Your task to perform on an android device: What is the recent news? Image 0: 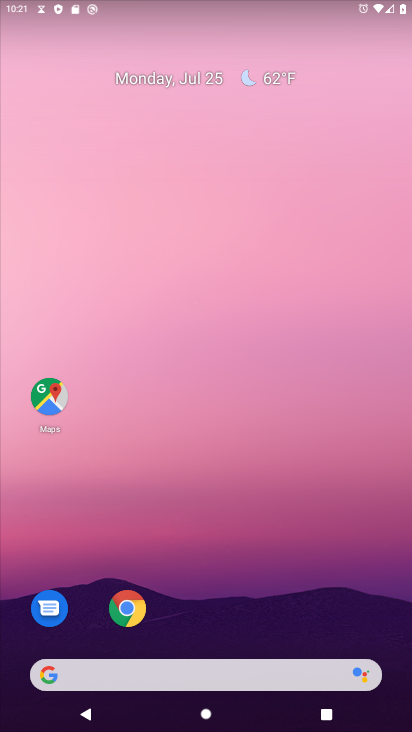
Step 0: press home button
Your task to perform on an android device: What is the recent news? Image 1: 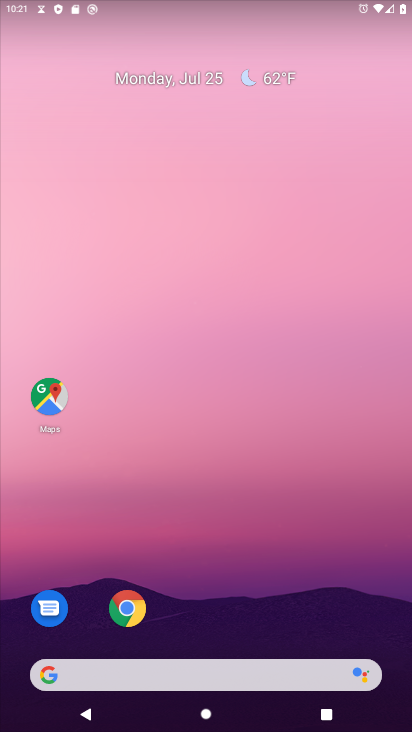
Step 1: click (128, 610)
Your task to perform on an android device: What is the recent news? Image 2: 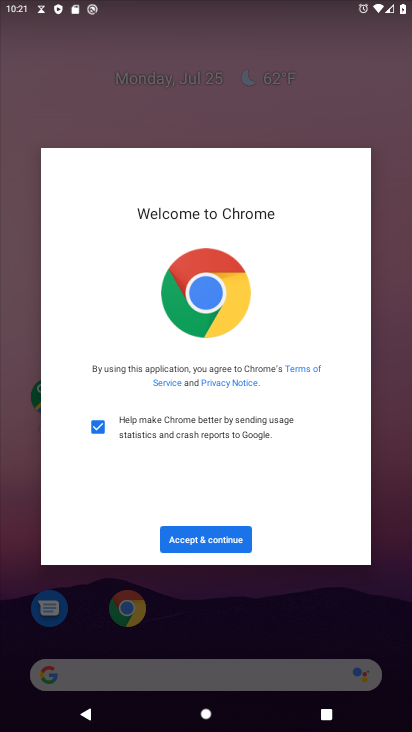
Step 2: click (200, 541)
Your task to perform on an android device: What is the recent news? Image 3: 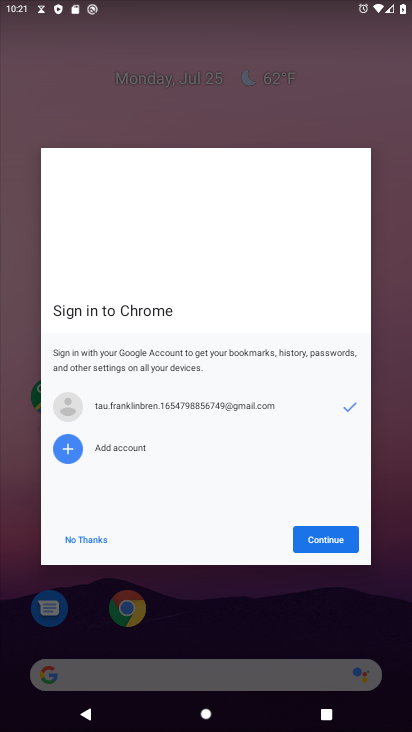
Step 3: click (321, 540)
Your task to perform on an android device: What is the recent news? Image 4: 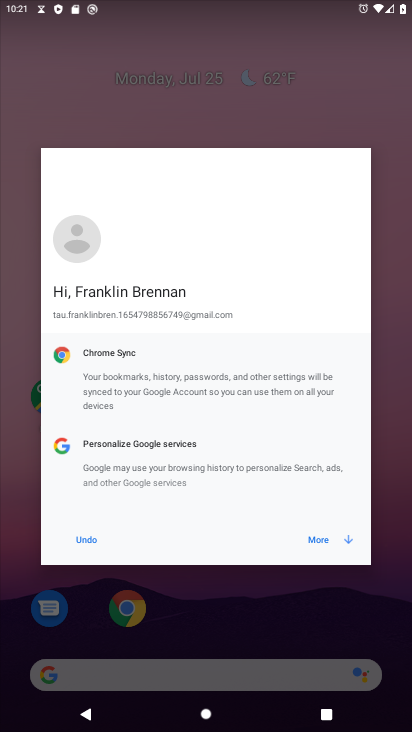
Step 4: click (321, 540)
Your task to perform on an android device: What is the recent news? Image 5: 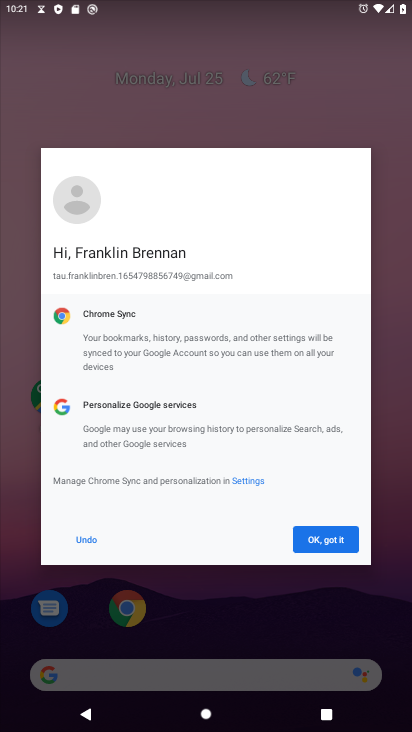
Step 5: click (321, 540)
Your task to perform on an android device: What is the recent news? Image 6: 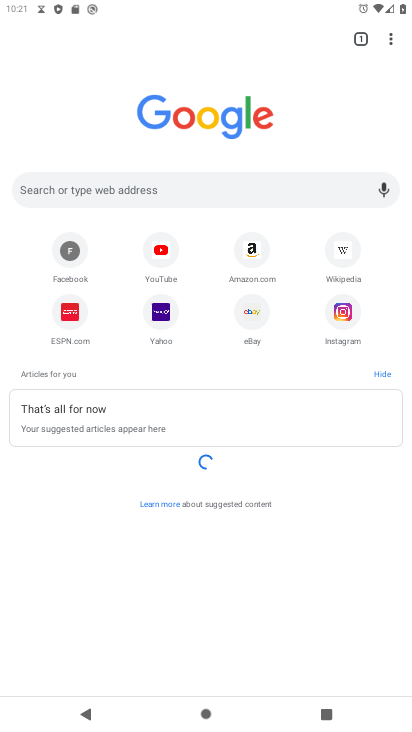
Step 6: click (251, 186)
Your task to perform on an android device: What is the recent news? Image 7: 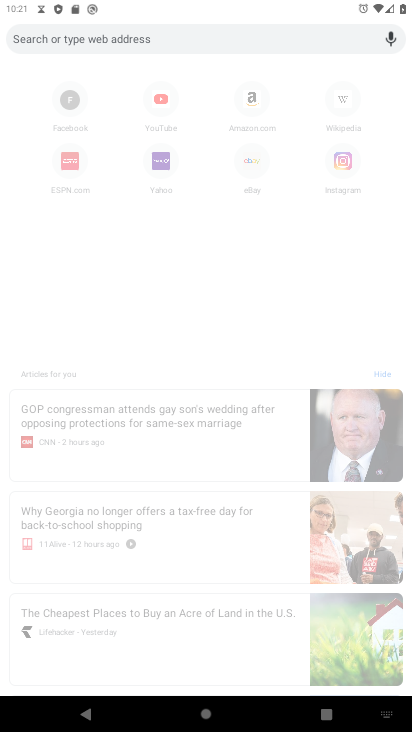
Step 7: type "recent news"
Your task to perform on an android device: What is the recent news? Image 8: 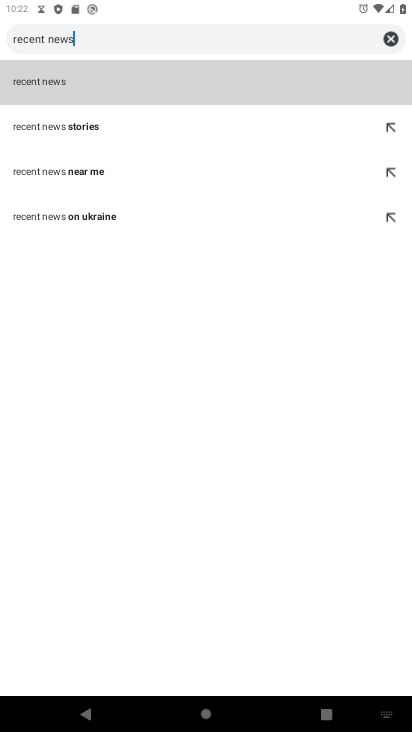
Step 8: click (54, 89)
Your task to perform on an android device: What is the recent news? Image 9: 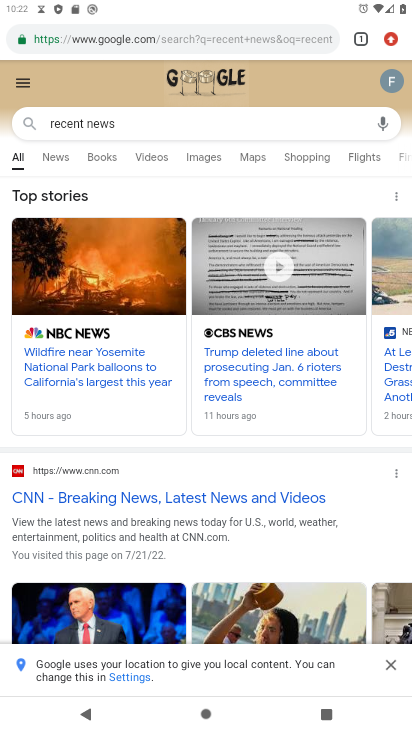
Step 9: click (93, 360)
Your task to perform on an android device: What is the recent news? Image 10: 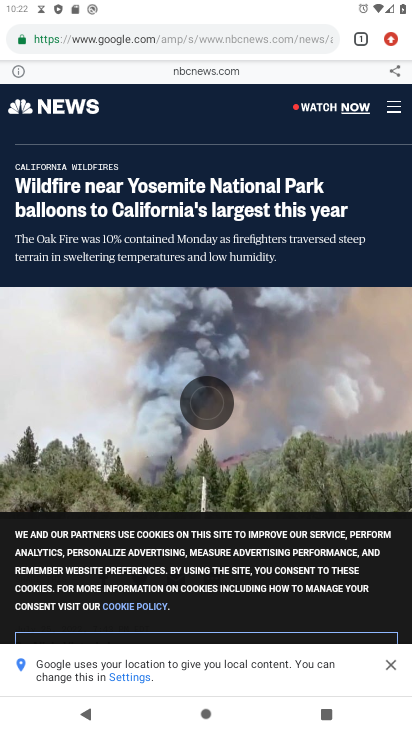
Step 10: task complete